Your task to perform on an android device: change the clock style Image 0: 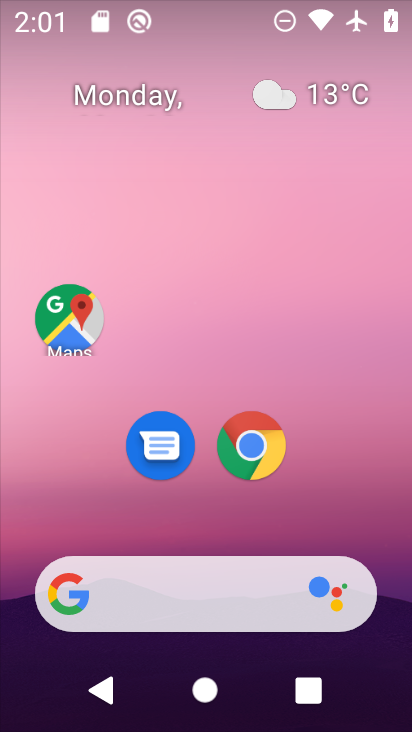
Step 0: drag from (388, 612) to (295, 70)
Your task to perform on an android device: change the clock style Image 1: 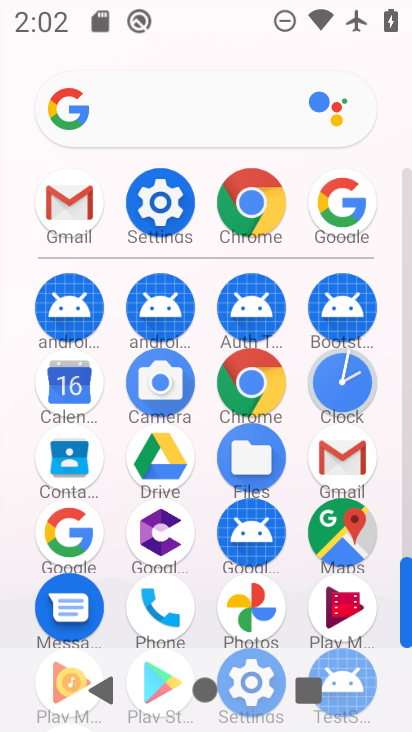
Step 1: click (356, 395)
Your task to perform on an android device: change the clock style Image 2: 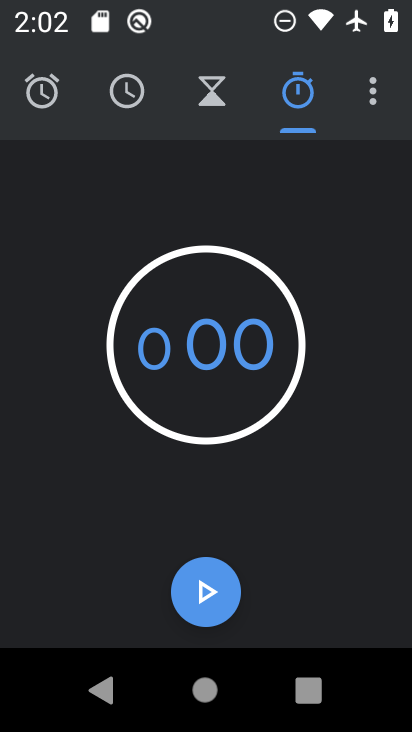
Step 2: click (370, 82)
Your task to perform on an android device: change the clock style Image 3: 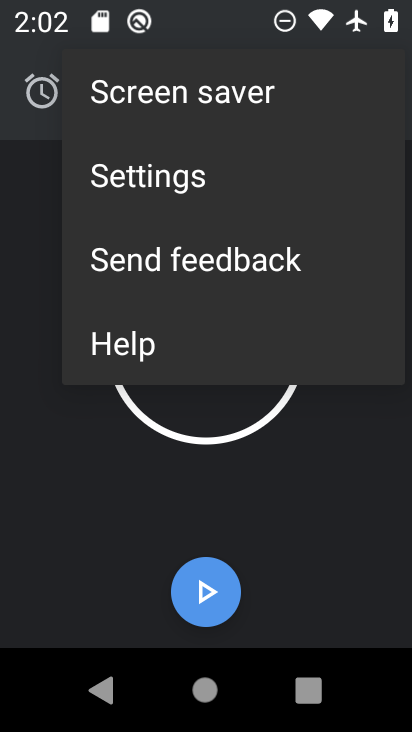
Step 3: click (163, 193)
Your task to perform on an android device: change the clock style Image 4: 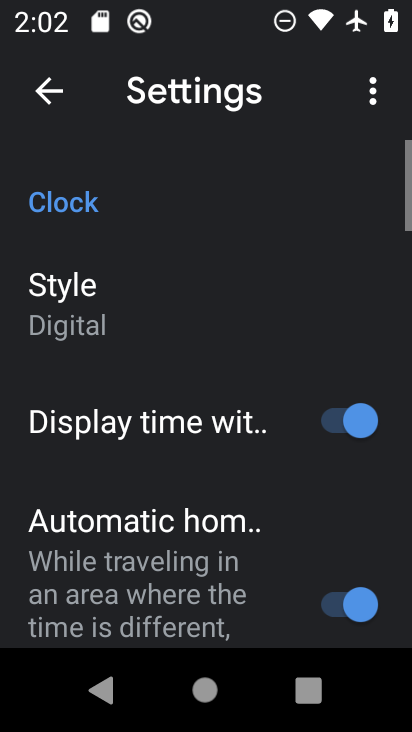
Step 4: click (158, 326)
Your task to perform on an android device: change the clock style Image 5: 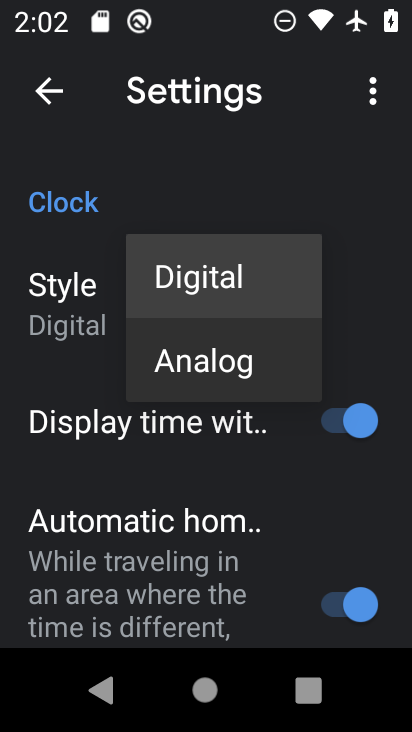
Step 5: click (199, 362)
Your task to perform on an android device: change the clock style Image 6: 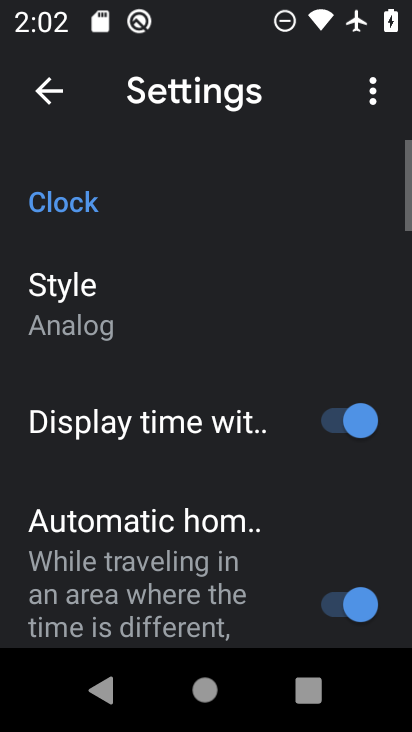
Step 6: task complete